Your task to perform on an android device: set an alarm Image 0: 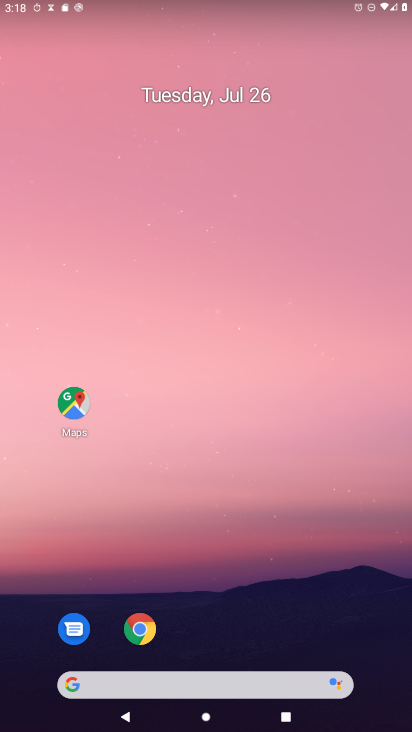
Step 0: drag from (182, 676) to (274, 30)
Your task to perform on an android device: set an alarm Image 1: 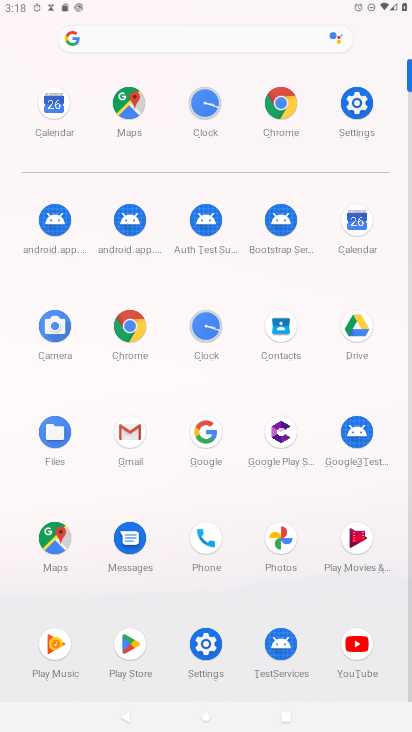
Step 1: click (199, 344)
Your task to perform on an android device: set an alarm Image 2: 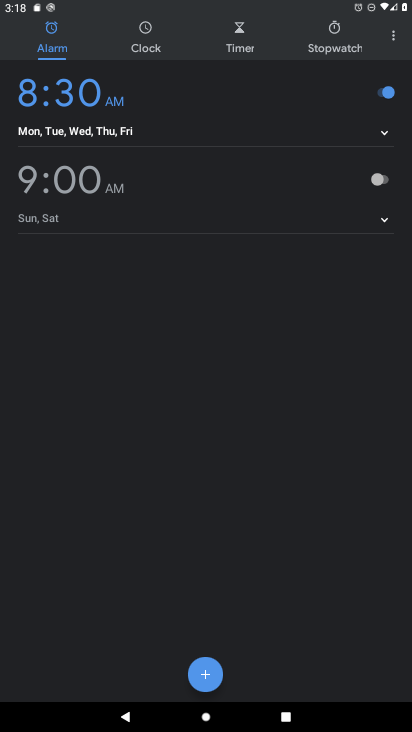
Step 2: press home button
Your task to perform on an android device: set an alarm Image 3: 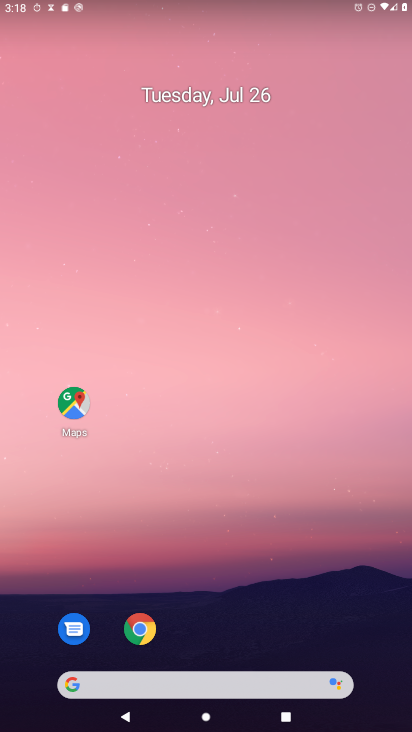
Step 3: drag from (255, 669) to (285, 69)
Your task to perform on an android device: set an alarm Image 4: 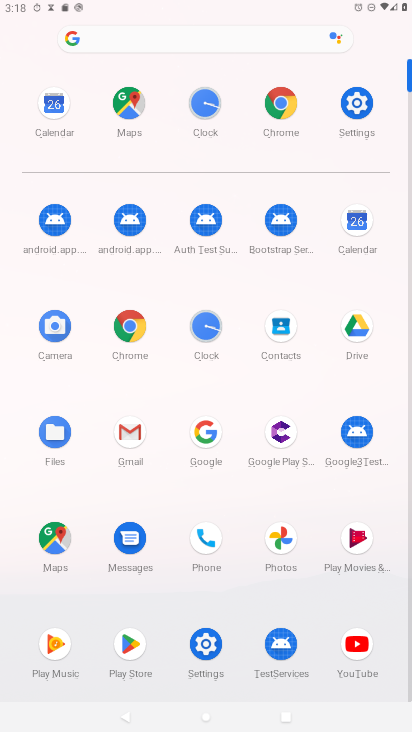
Step 4: click (201, 329)
Your task to perform on an android device: set an alarm Image 5: 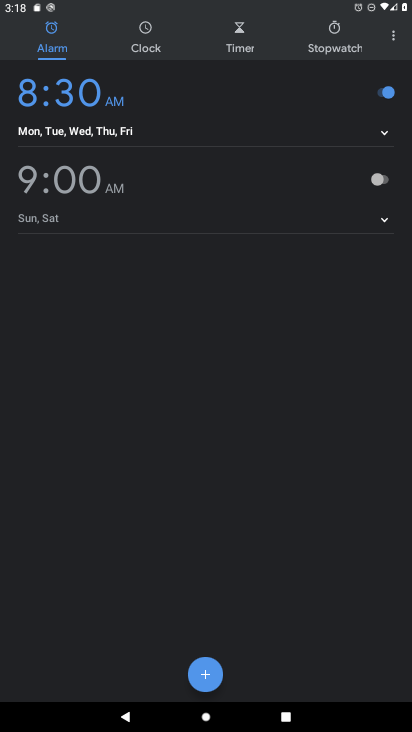
Step 5: task complete